Your task to perform on an android device: Go to settings Image 0: 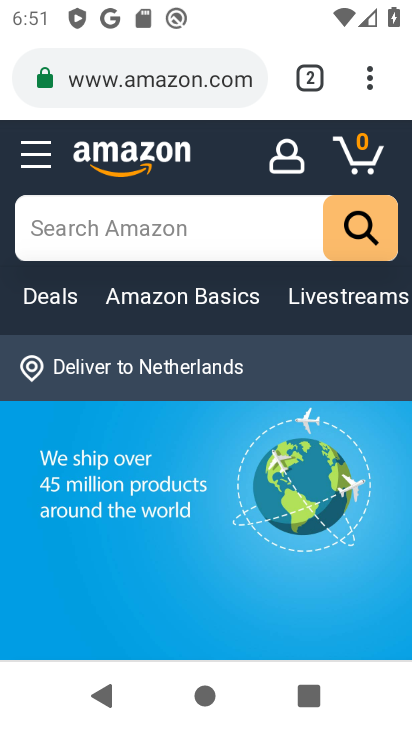
Step 0: press home button
Your task to perform on an android device: Go to settings Image 1: 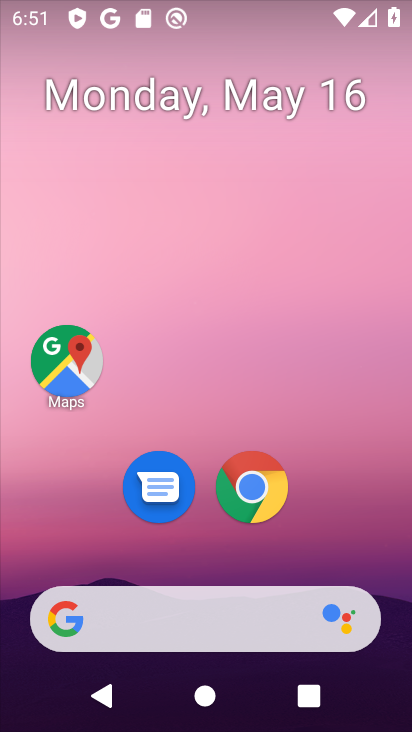
Step 1: drag from (370, 557) to (230, 7)
Your task to perform on an android device: Go to settings Image 2: 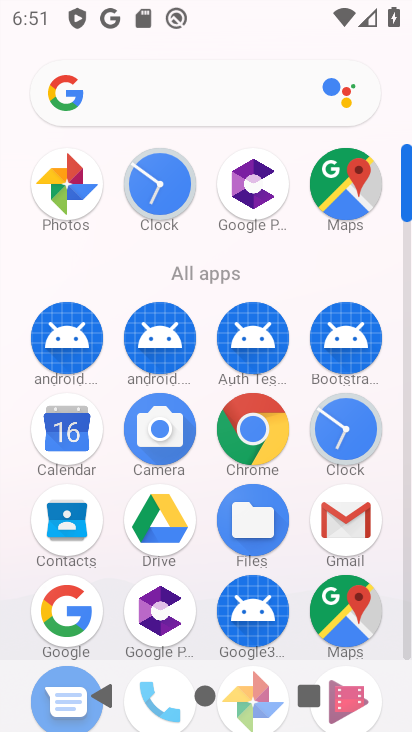
Step 2: drag from (195, 297) to (203, 16)
Your task to perform on an android device: Go to settings Image 3: 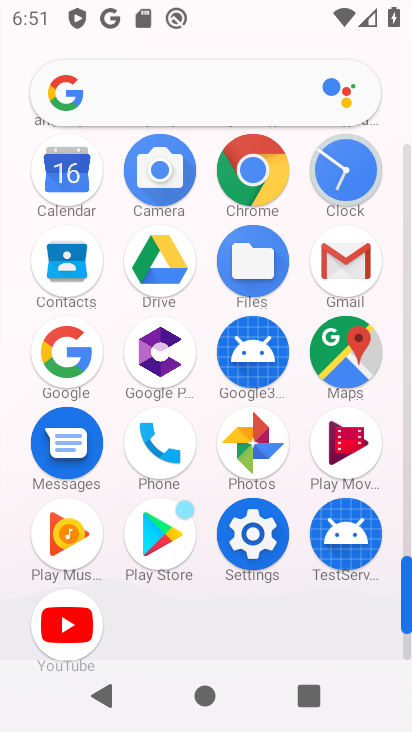
Step 3: click (256, 548)
Your task to perform on an android device: Go to settings Image 4: 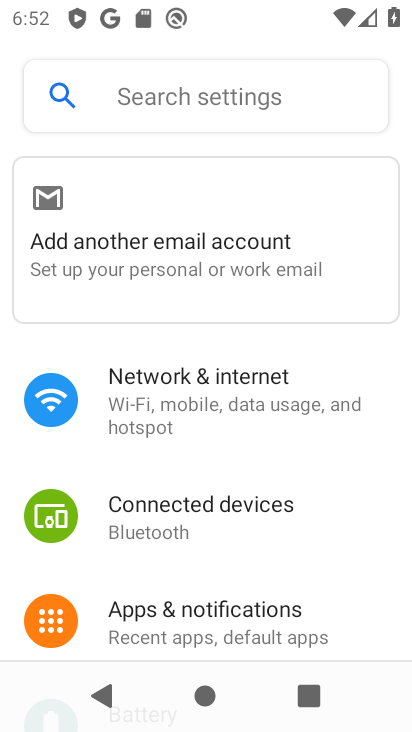
Step 4: task complete